Your task to perform on an android device: Show the shopping cart on amazon.com. Search for bose soundlink mini on amazon.com, select the first entry, and add it to the cart. Image 0: 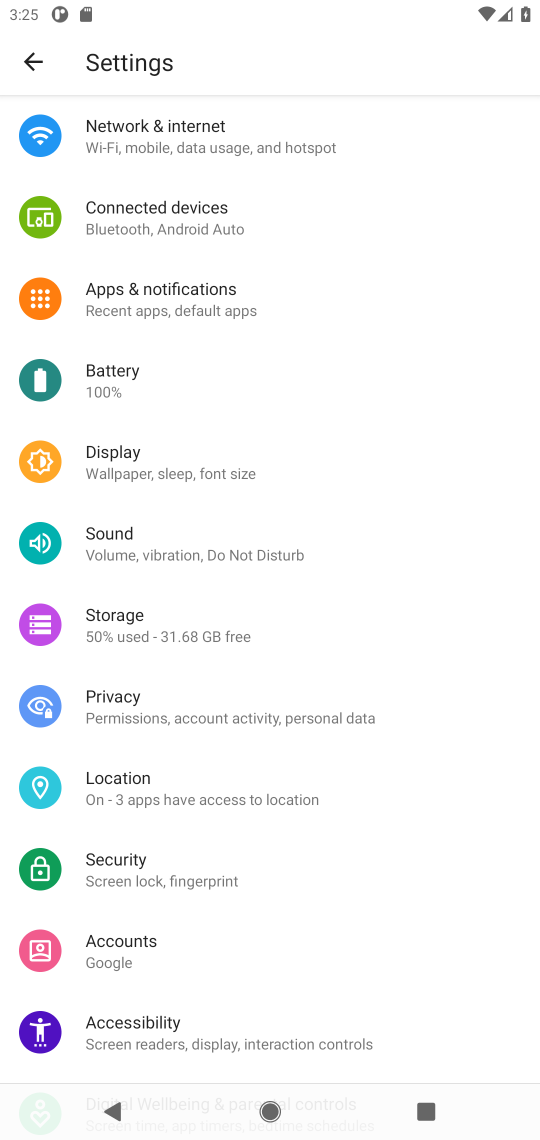
Step 0: press home button
Your task to perform on an android device: Show the shopping cart on amazon.com. Search for bose soundlink mini on amazon.com, select the first entry, and add it to the cart. Image 1: 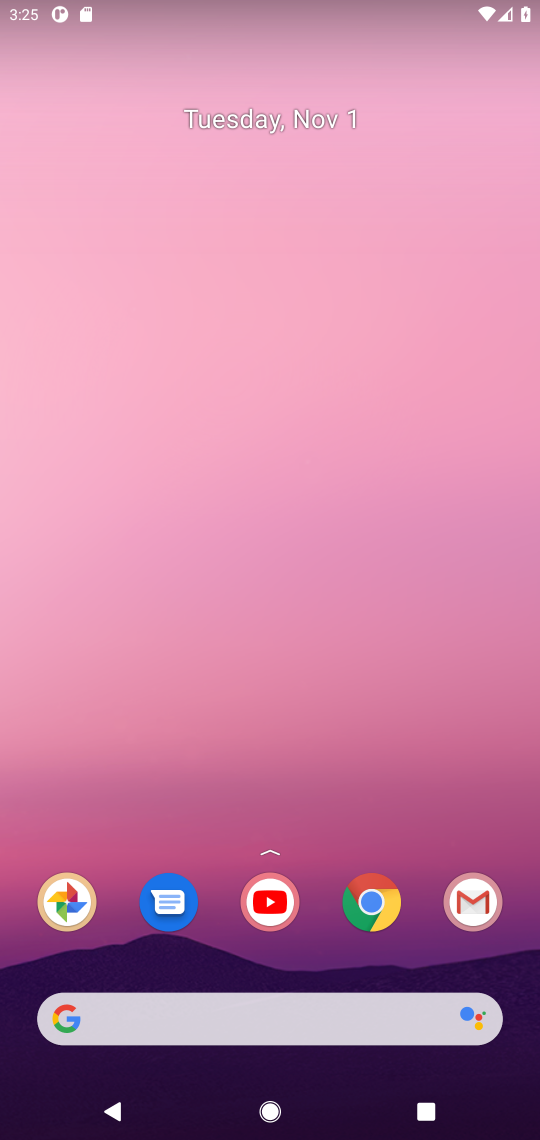
Step 1: click (370, 901)
Your task to perform on an android device: Show the shopping cart on amazon.com. Search for bose soundlink mini on amazon.com, select the first entry, and add it to the cart. Image 2: 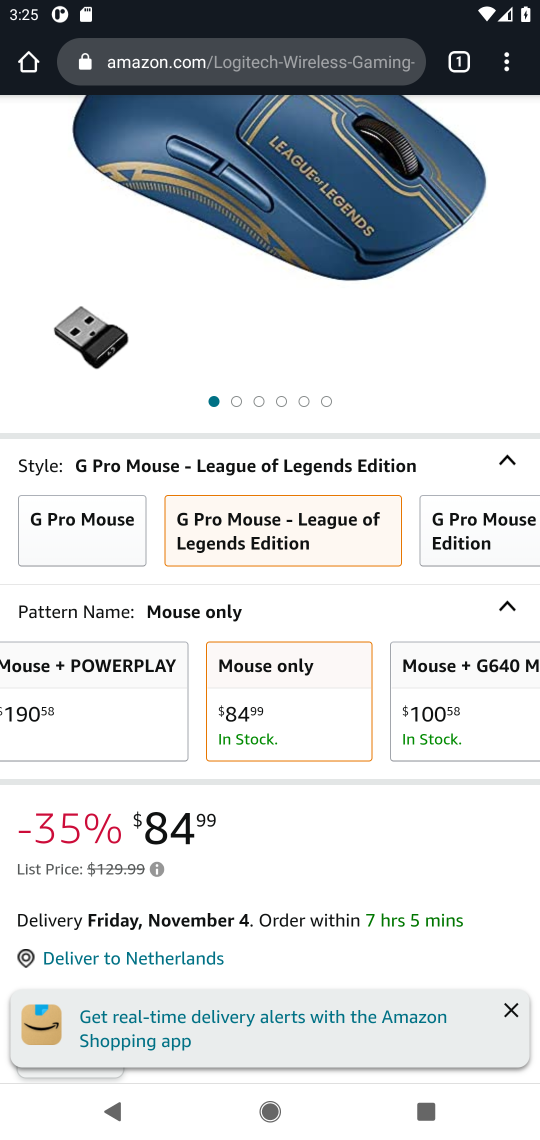
Step 2: click (288, 63)
Your task to perform on an android device: Show the shopping cart on amazon.com. Search for bose soundlink mini on amazon.com, select the first entry, and add it to the cart. Image 3: 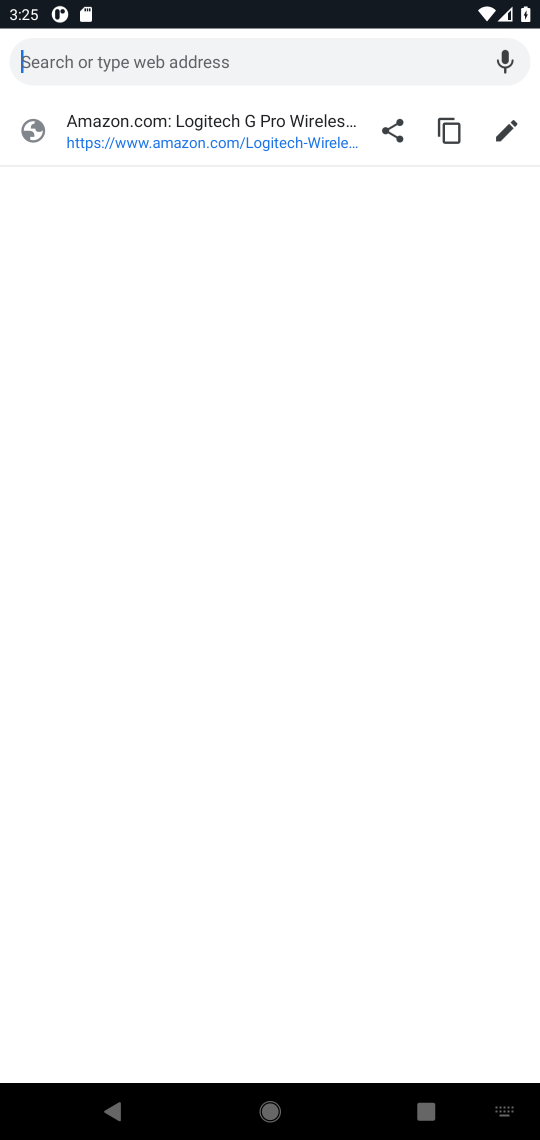
Step 3: type "amazon.com"
Your task to perform on an android device: Show the shopping cart on amazon.com. Search for bose soundlink mini on amazon.com, select the first entry, and add it to the cart. Image 4: 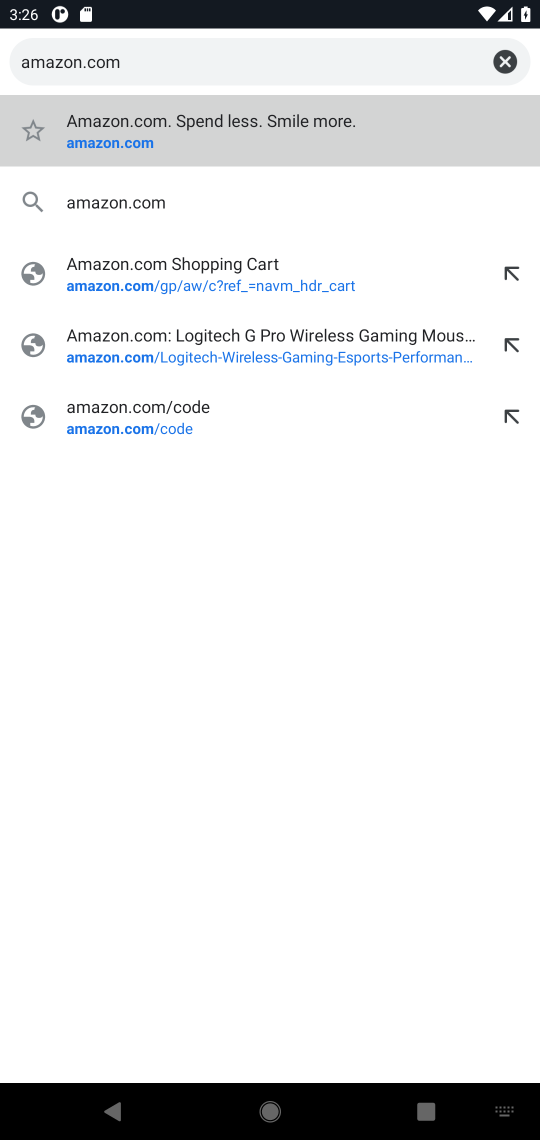
Step 4: click (150, 196)
Your task to perform on an android device: Show the shopping cart on amazon.com. Search for bose soundlink mini on amazon.com, select the first entry, and add it to the cart. Image 5: 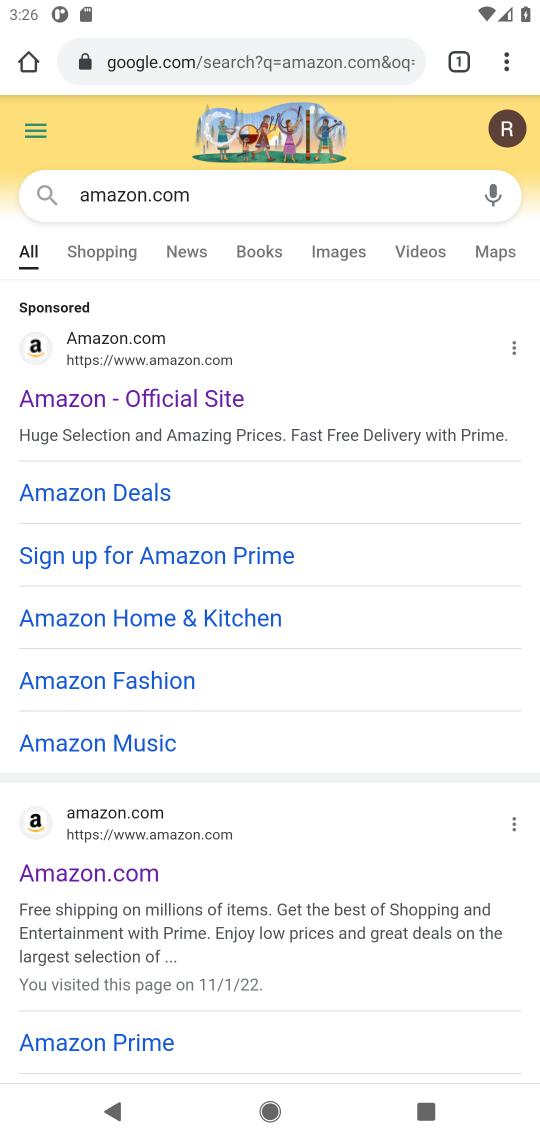
Step 5: click (91, 881)
Your task to perform on an android device: Show the shopping cart on amazon.com. Search for bose soundlink mini on amazon.com, select the first entry, and add it to the cart. Image 6: 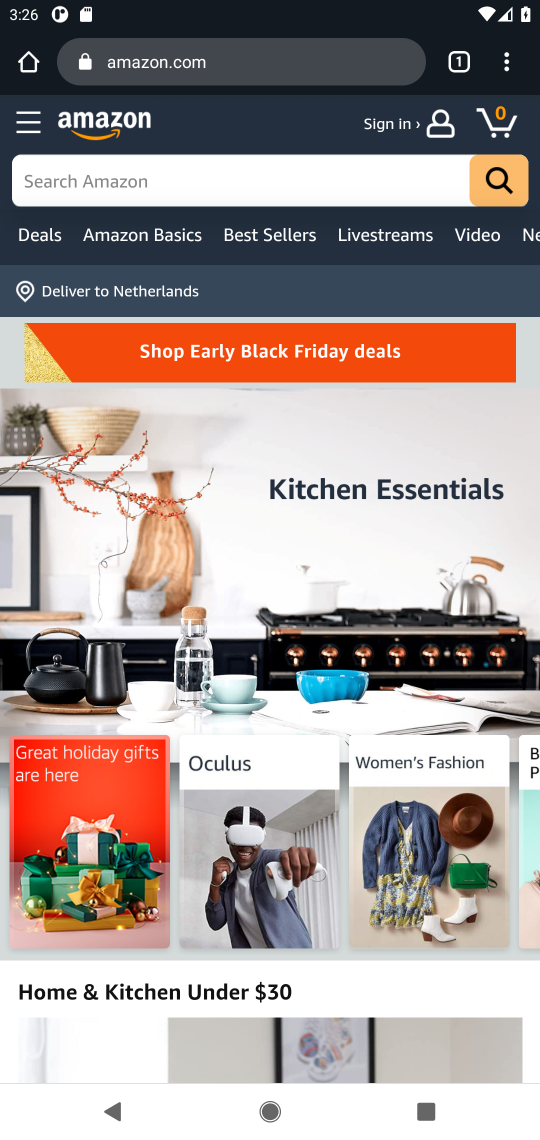
Step 6: click (503, 124)
Your task to perform on an android device: Show the shopping cart on amazon.com. Search for bose soundlink mini on amazon.com, select the first entry, and add it to the cart. Image 7: 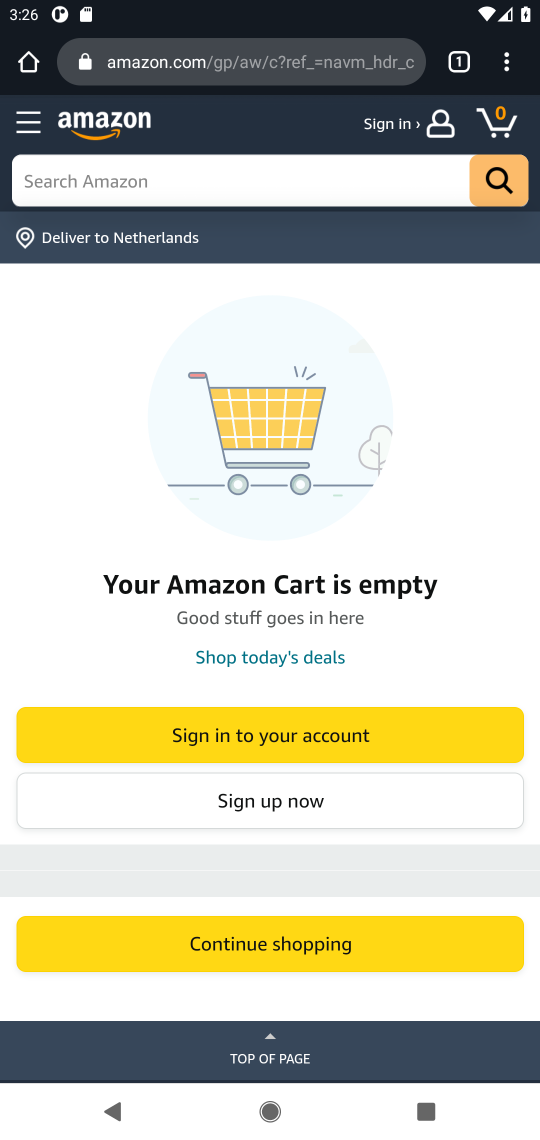
Step 7: click (326, 181)
Your task to perform on an android device: Show the shopping cart on amazon.com. Search for bose soundlink mini on amazon.com, select the first entry, and add it to the cart. Image 8: 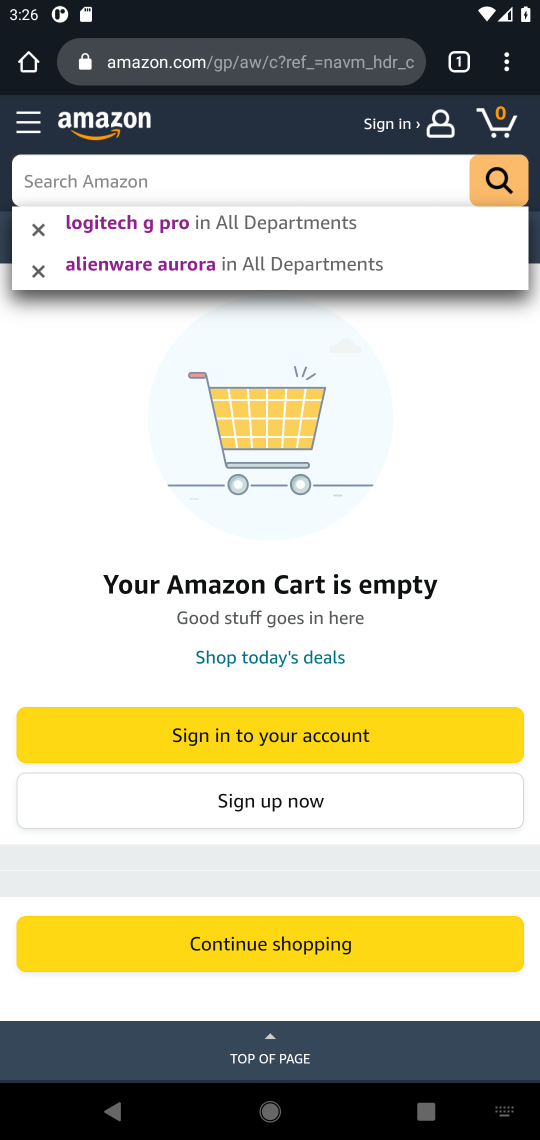
Step 8: type "bose soundlink mini"
Your task to perform on an android device: Show the shopping cart on amazon.com. Search for bose soundlink mini on amazon.com, select the first entry, and add it to the cart. Image 9: 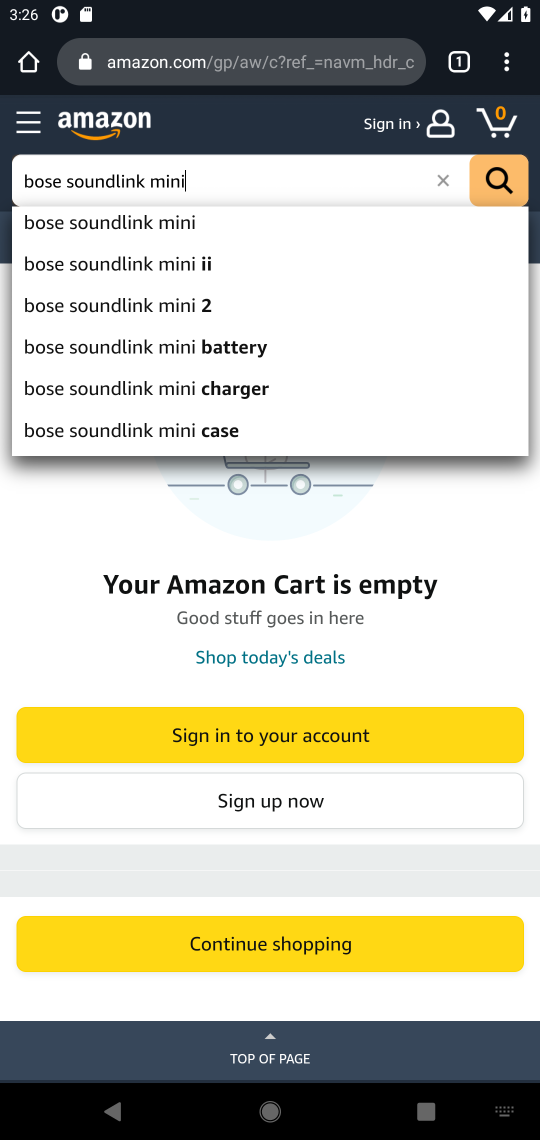
Step 9: click (146, 214)
Your task to perform on an android device: Show the shopping cart on amazon.com. Search for bose soundlink mini on amazon.com, select the first entry, and add it to the cart. Image 10: 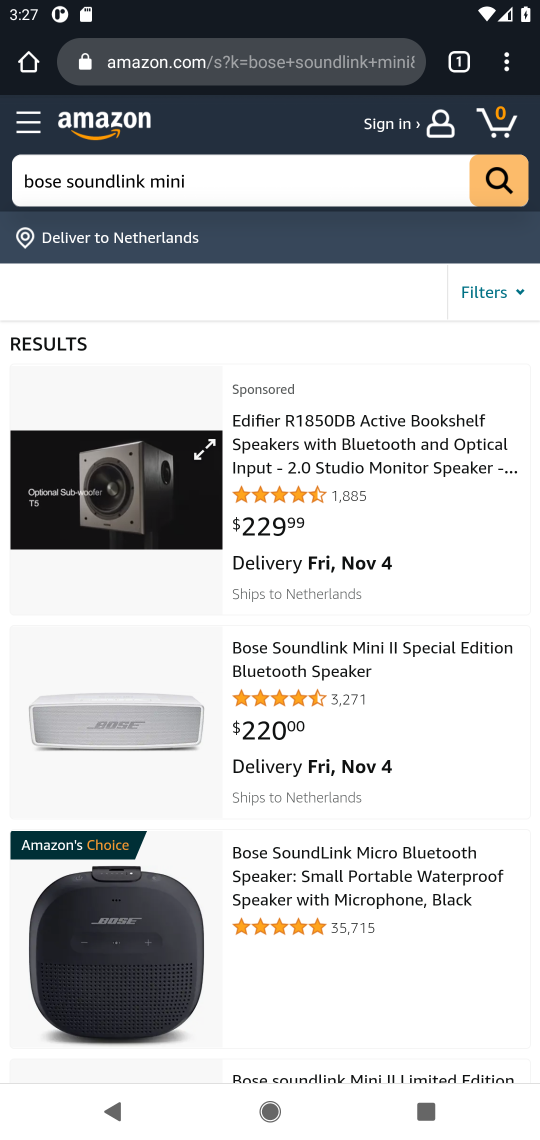
Step 10: click (311, 644)
Your task to perform on an android device: Show the shopping cart on amazon.com. Search for bose soundlink mini on amazon.com, select the first entry, and add it to the cart. Image 11: 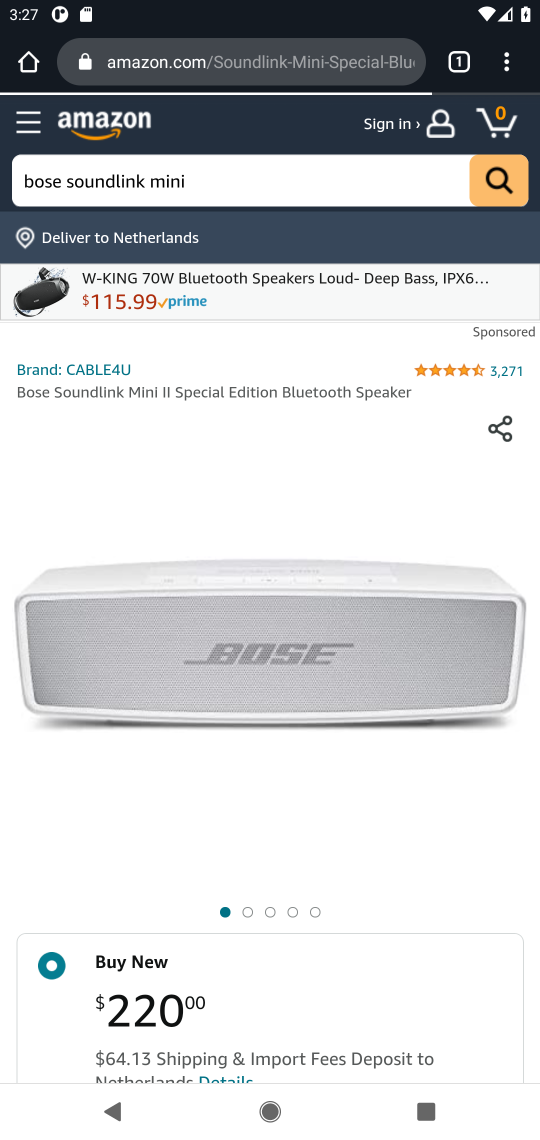
Step 11: drag from (365, 799) to (388, 396)
Your task to perform on an android device: Show the shopping cart on amazon.com. Search for bose soundlink mini on amazon.com, select the first entry, and add it to the cart. Image 12: 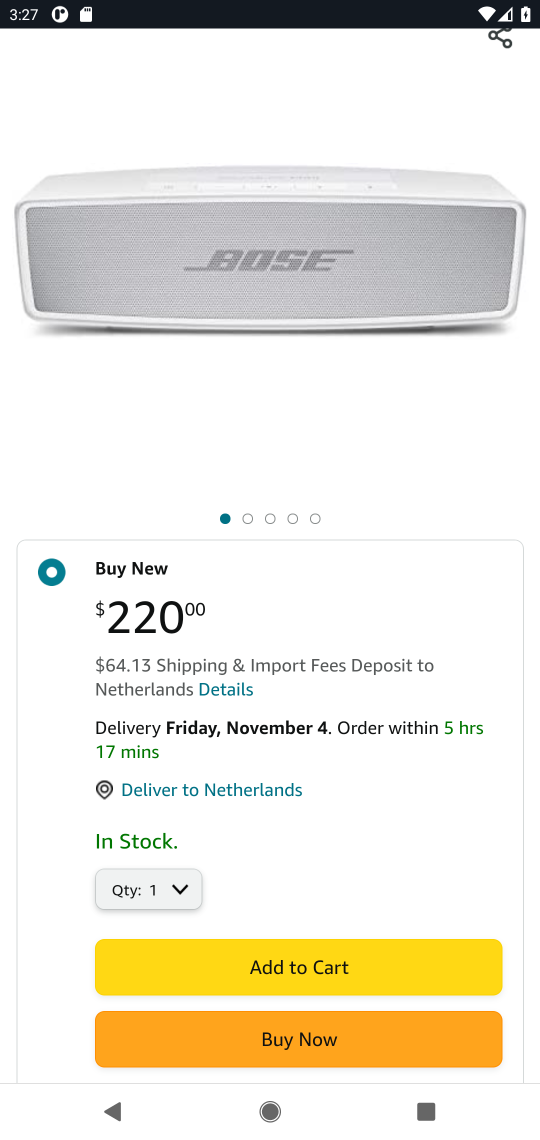
Step 12: click (293, 961)
Your task to perform on an android device: Show the shopping cart on amazon.com. Search for bose soundlink mini on amazon.com, select the first entry, and add it to the cart. Image 13: 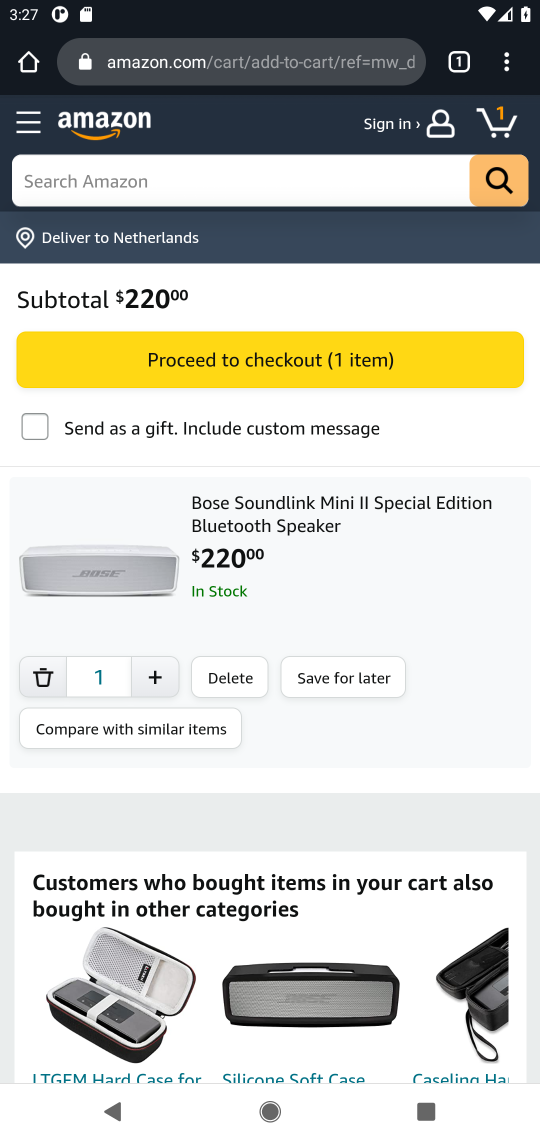
Step 13: task complete